Your task to perform on an android device: Open Maps and search for coffee Image 0: 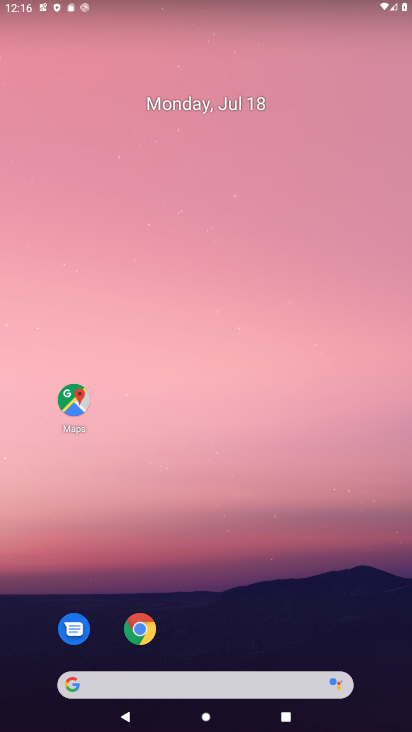
Step 0: press home button
Your task to perform on an android device: Open Maps and search for coffee Image 1: 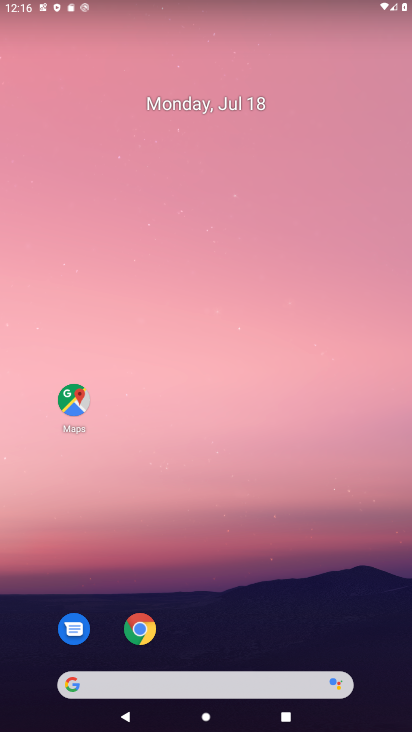
Step 1: click (70, 399)
Your task to perform on an android device: Open Maps and search for coffee Image 2: 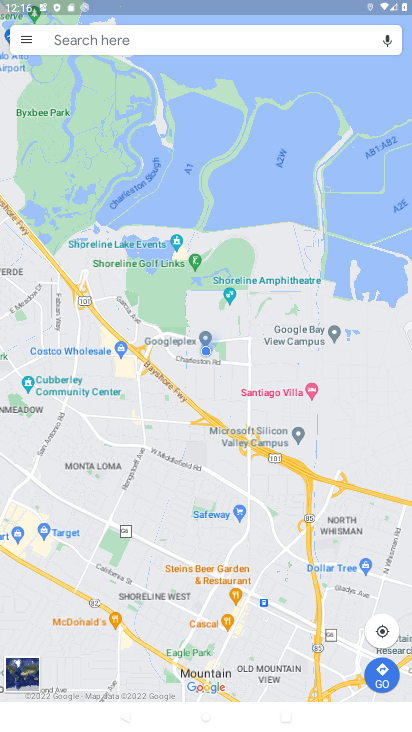
Step 2: click (118, 39)
Your task to perform on an android device: Open Maps and search for coffee Image 3: 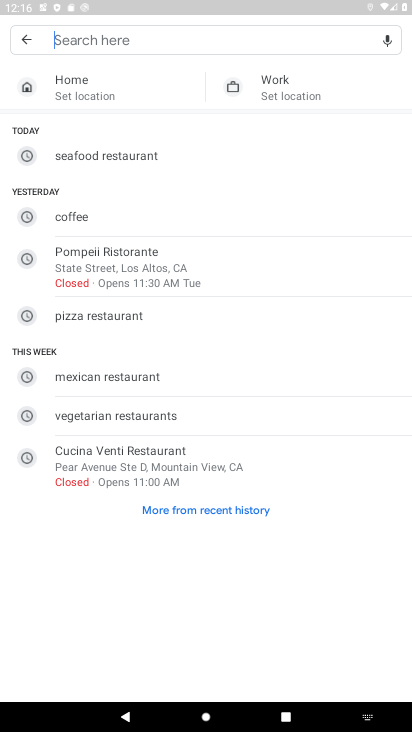
Step 3: click (100, 210)
Your task to perform on an android device: Open Maps and search for coffee Image 4: 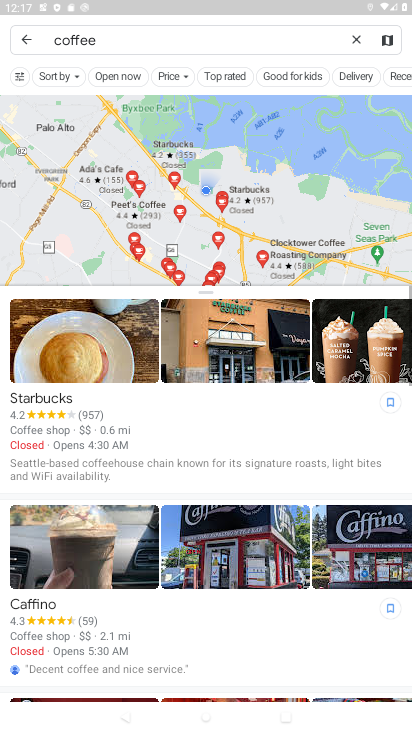
Step 4: task complete